Your task to perform on an android device: Open the stopwatch Image 0: 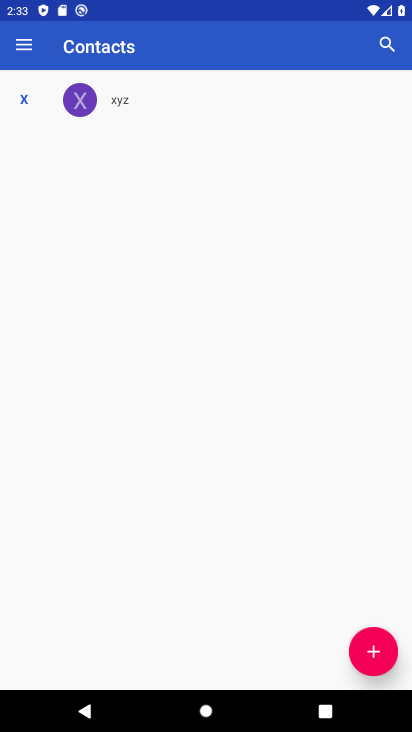
Step 0: press home button
Your task to perform on an android device: Open the stopwatch Image 1: 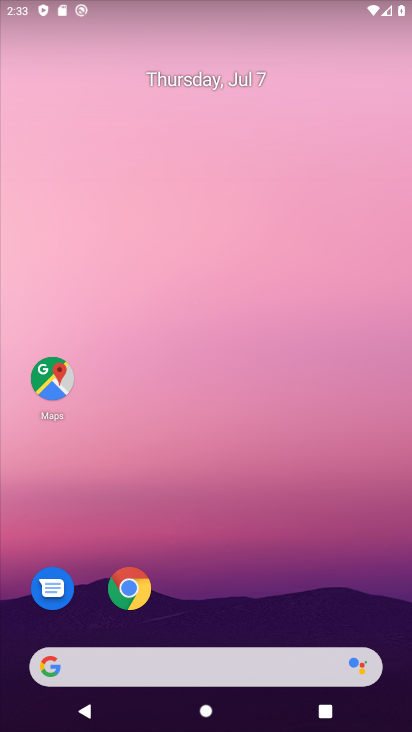
Step 1: drag from (228, 594) to (192, 117)
Your task to perform on an android device: Open the stopwatch Image 2: 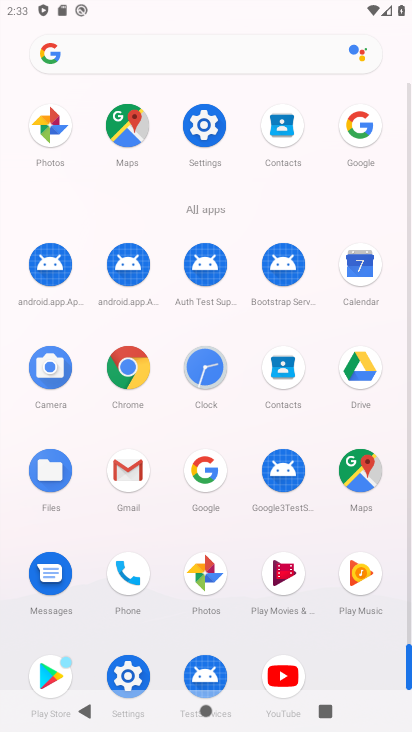
Step 2: click (204, 367)
Your task to perform on an android device: Open the stopwatch Image 3: 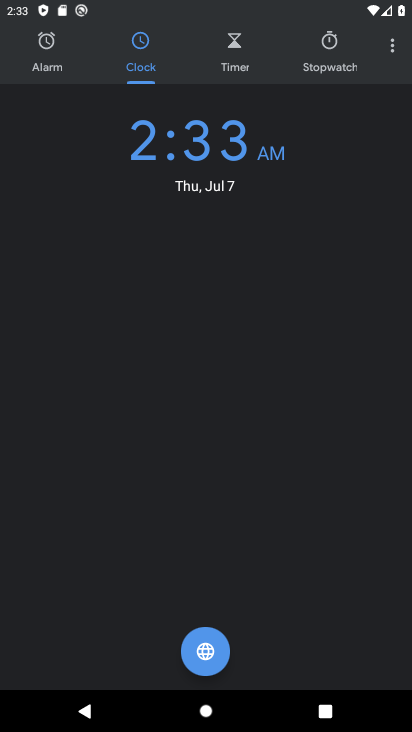
Step 3: click (332, 42)
Your task to perform on an android device: Open the stopwatch Image 4: 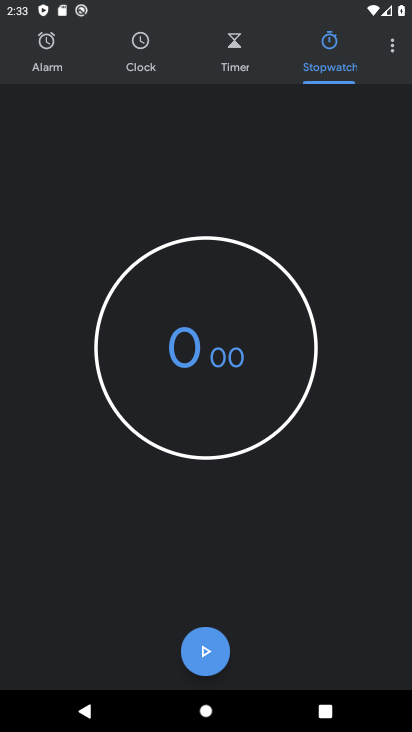
Step 4: task complete